Your task to perform on an android device: turn on improve location accuracy Image 0: 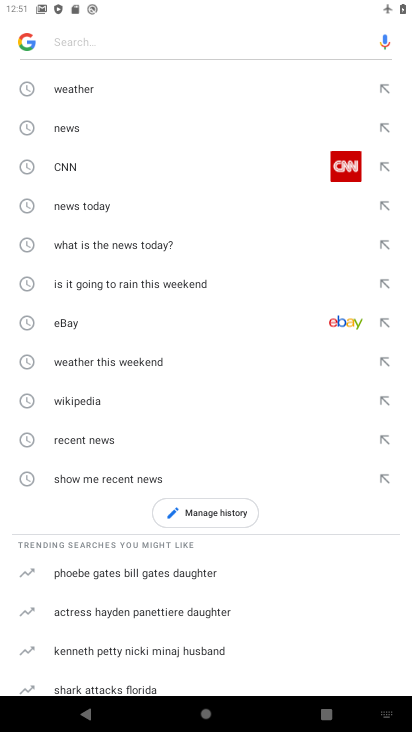
Step 0: press home button
Your task to perform on an android device: turn on improve location accuracy Image 1: 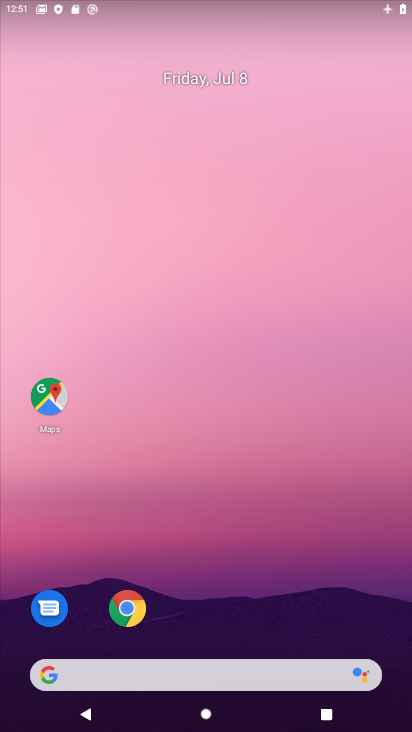
Step 1: drag from (363, 622) to (298, 51)
Your task to perform on an android device: turn on improve location accuracy Image 2: 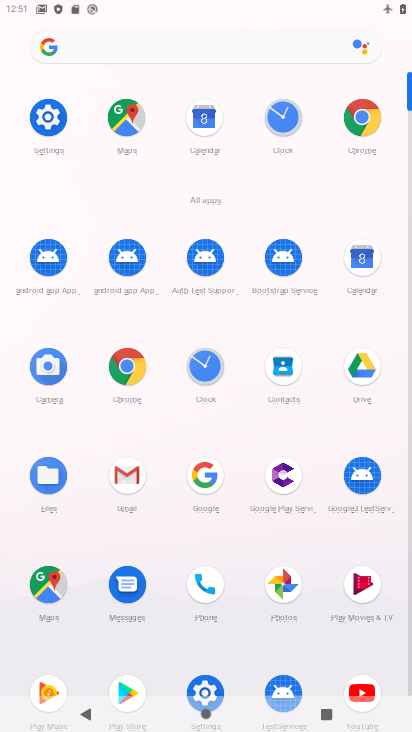
Step 2: click (408, 677)
Your task to perform on an android device: turn on improve location accuracy Image 3: 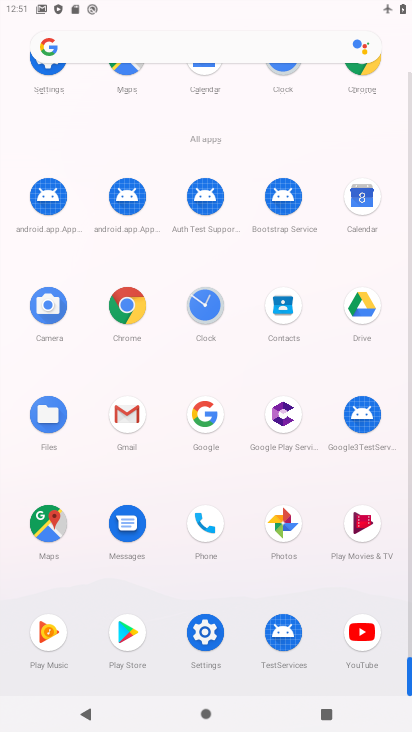
Step 3: click (202, 631)
Your task to perform on an android device: turn on improve location accuracy Image 4: 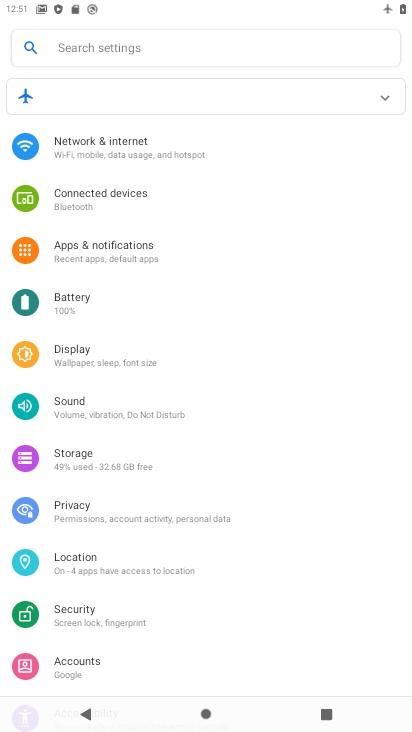
Step 4: click (76, 558)
Your task to perform on an android device: turn on improve location accuracy Image 5: 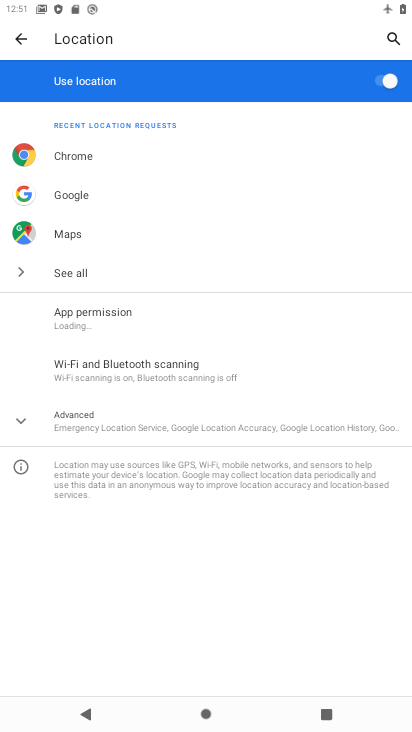
Step 5: click (17, 418)
Your task to perform on an android device: turn on improve location accuracy Image 6: 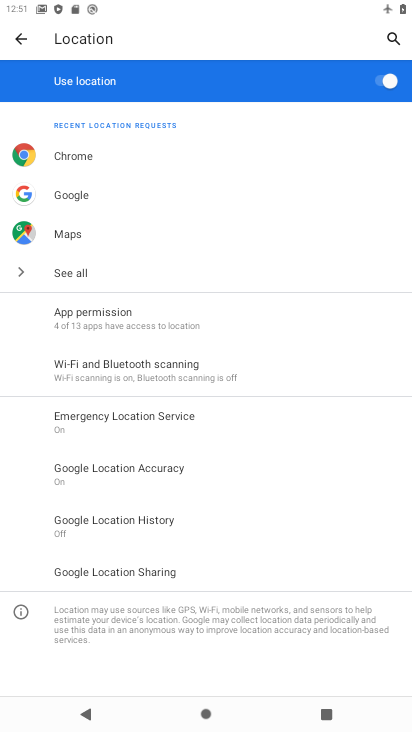
Step 6: click (116, 467)
Your task to perform on an android device: turn on improve location accuracy Image 7: 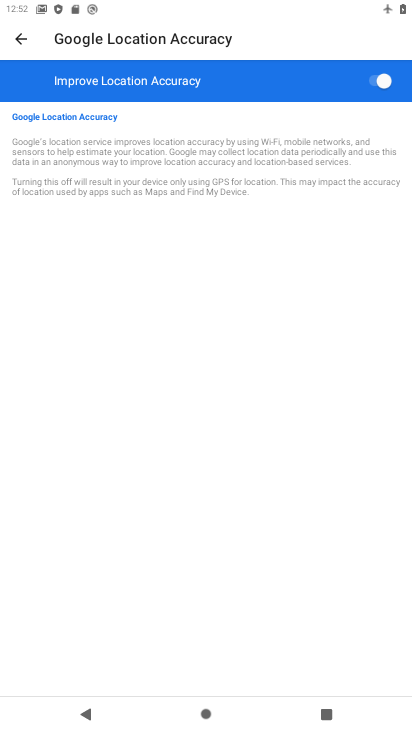
Step 7: task complete